Your task to perform on an android device: What's the weather going to be tomorrow? Image 0: 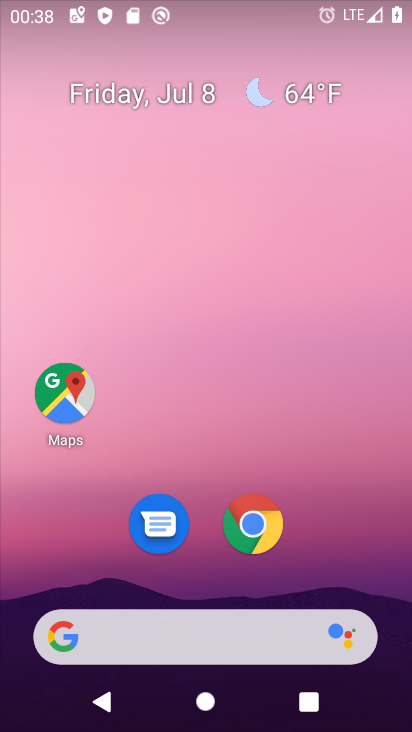
Step 0: drag from (204, 457) to (260, 46)
Your task to perform on an android device: What's the weather going to be tomorrow? Image 1: 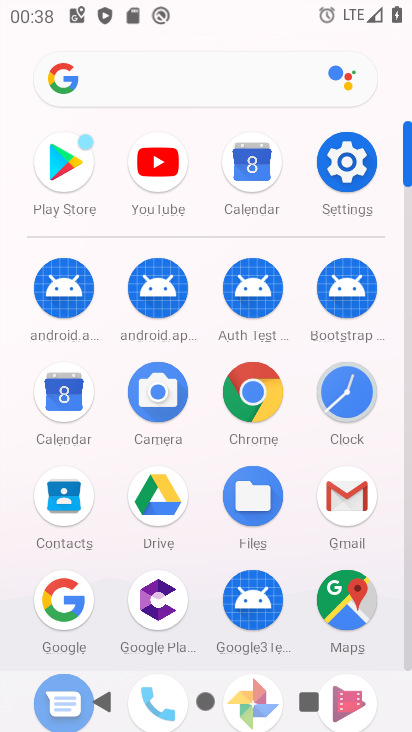
Step 1: click (233, 81)
Your task to perform on an android device: What's the weather going to be tomorrow? Image 2: 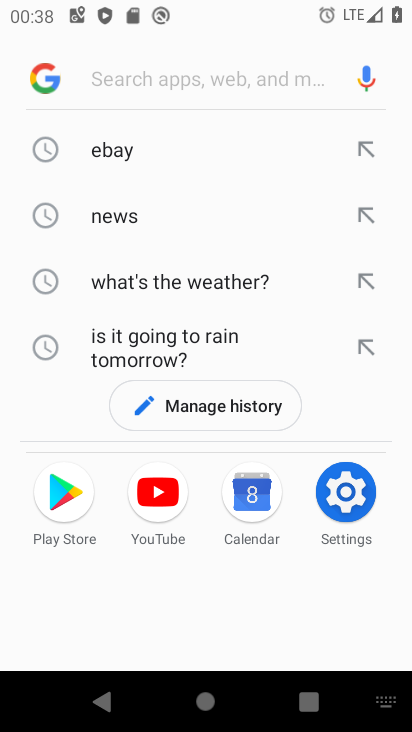
Step 2: click (160, 279)
Your task to perform on an android device: What's the weather going to be tomorrow? Image 3: 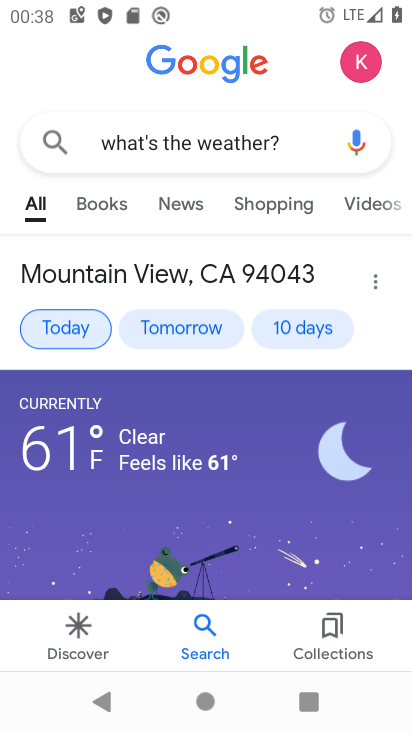
Step 3: click (82, 322)
Your task to perform on an android device: What's the weather going to be tomorrow? Image 4: 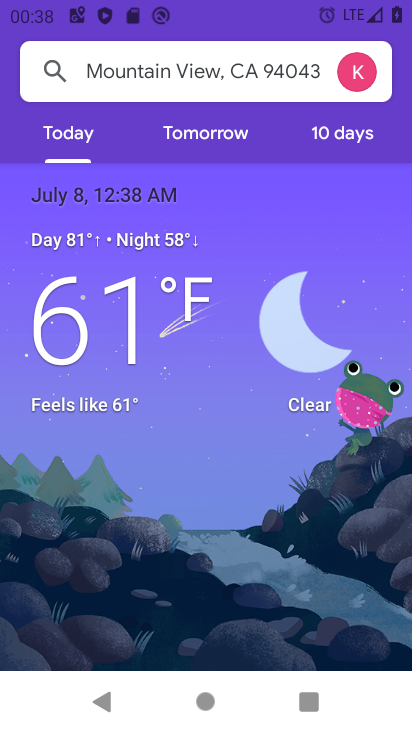
Step 4: click (217, 140)
Your task to perform on an android device: What's the weather going to be tomorrow? Image 5: 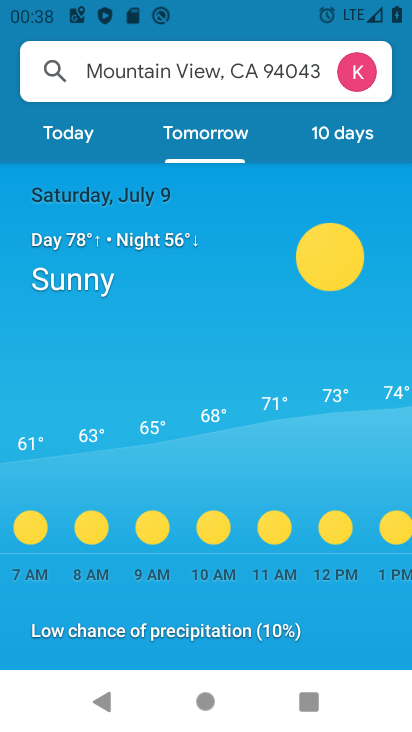
Step 5: task complete